Your task to perform on an android device: open a bookmark in the chrome app Image 0: 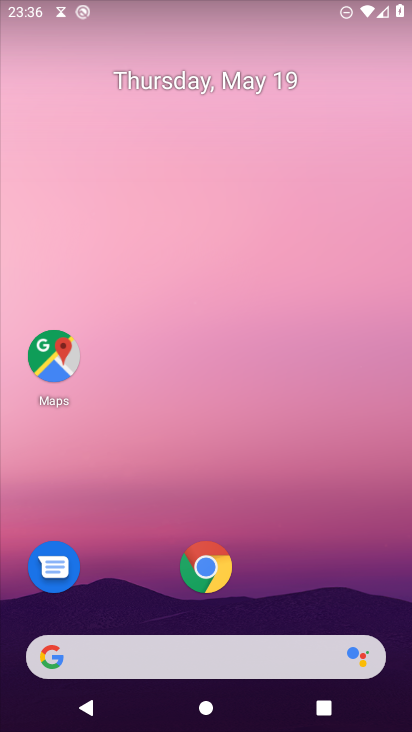
Step 0: click (212, 566)
Your task to perform on an android device: open a bookmark in the chrome app Image 1: 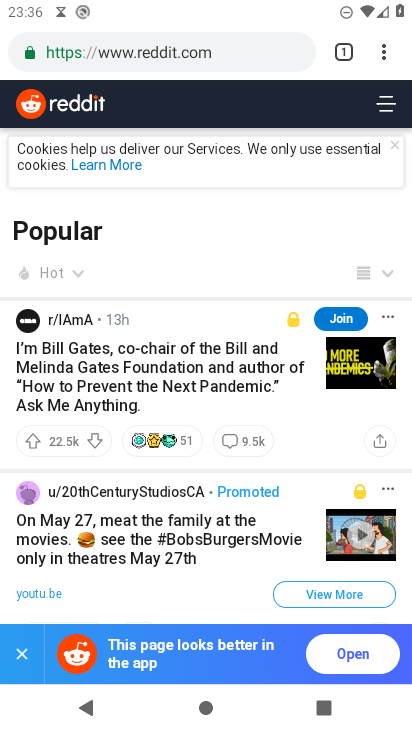
Step 1: click (380, 54)
Your task to perform on an android device: open a bookmark in the chrome app Image 2: 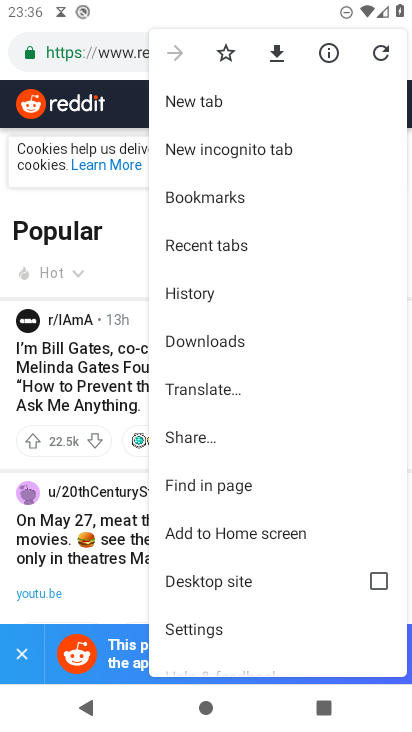
Step 2: click (260, 194)
Your task to perform on an android device: open a bookmark in the chrome app Image 3: 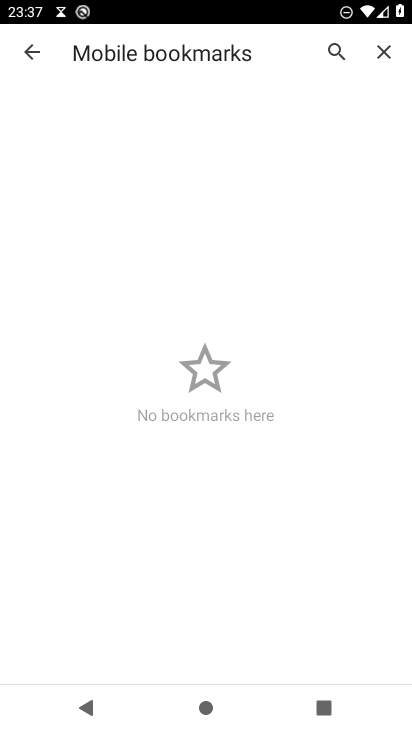
Step 3: task complete